Your task to perform on an android device: Go to privacy settings Image 0: 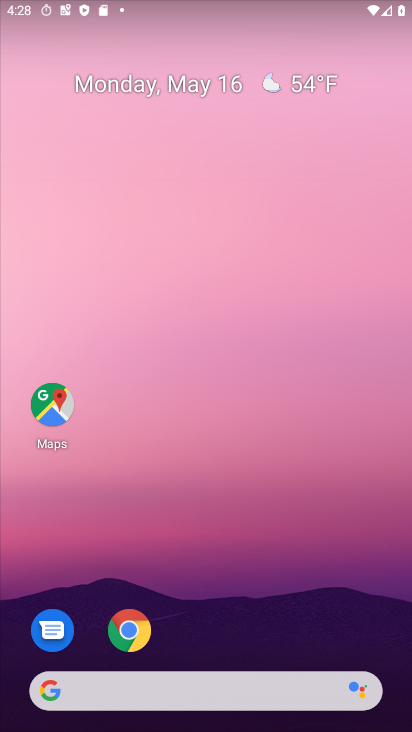
Step 0: drag from (212, 650) to (229, 36)
Your task to perform on an android device: Go to privacy settings Image 1: 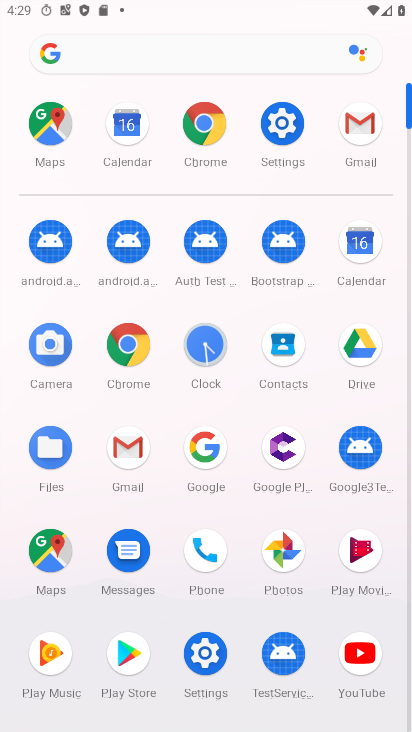
Step 1: click (290, 137)
Your task to perform on an android device: Go to privacy settings Image 2: 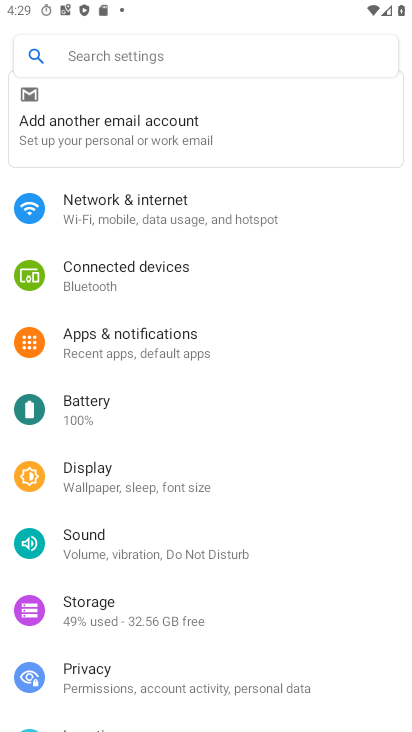
Step 2: click (133, 688)
Your task to perform on an android device: Go to privacy settings Image 3: 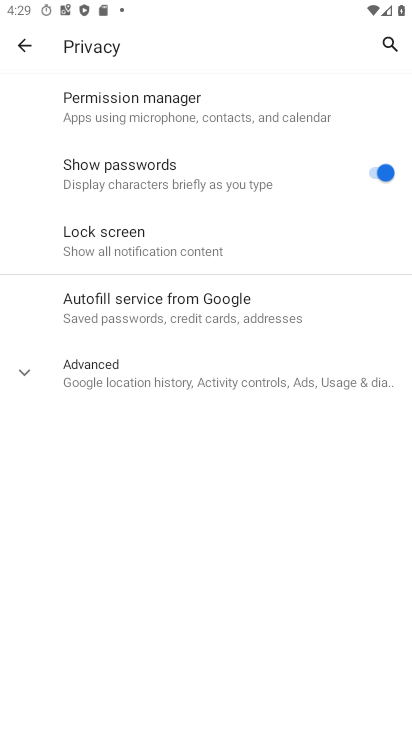
Step 3: task complete